Your task to perform on an android device: Open Chrome and go to the settings page Image 0: 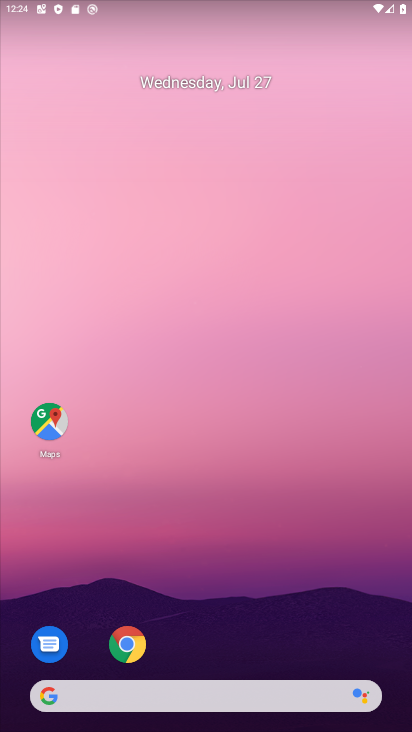
Step 0: drag from (339, 610) to (283, 19)
Your task to perform on an android device: Open Chrome and go to the settings page Image 1: 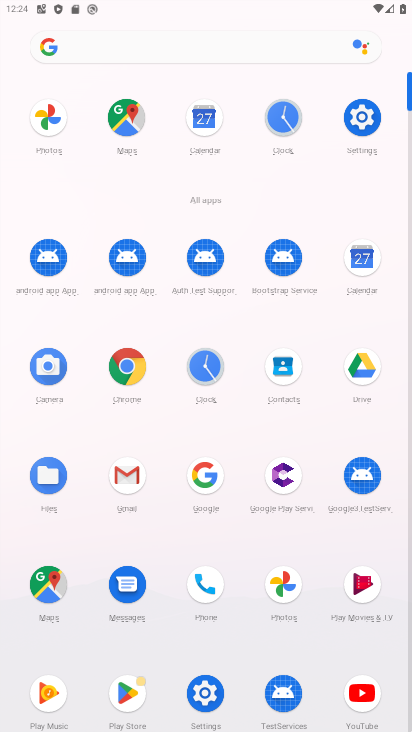
Step 1: click (124, 385)
Your task to perform on an android device: Open Chrome and go to the settings page Image 2: 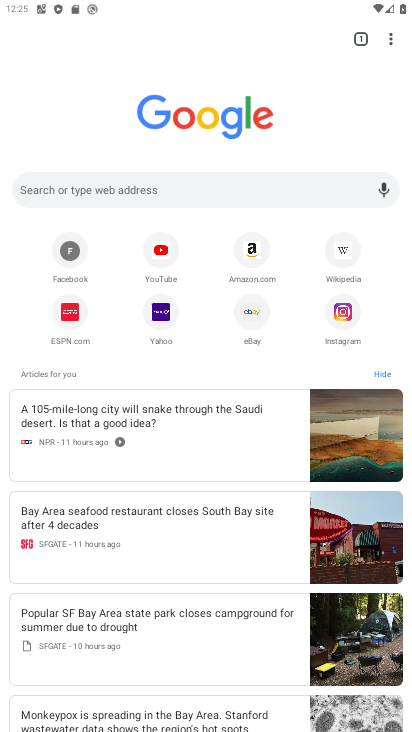
Step 2: task complete